Your task to perform on an android device: turn off location history Image 0: 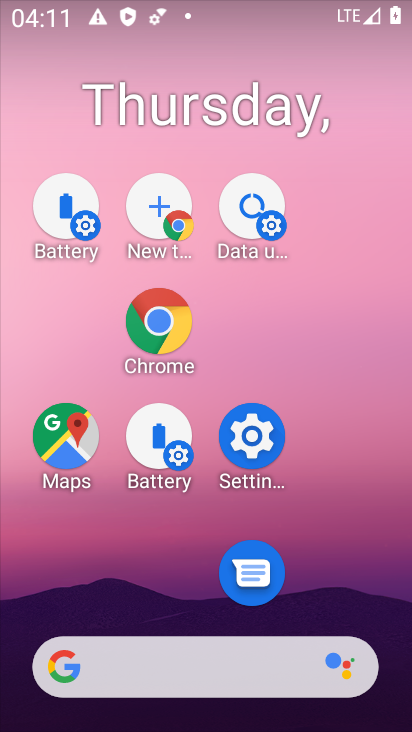
Step 0: drag from (249, 617) to (209, 273)
Your task to perform on an android device: turn off location history Image 1: 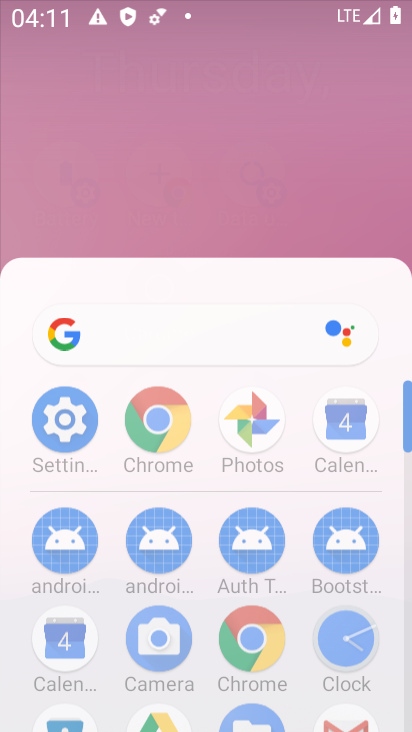
Step 1: drag from (270, 575) to (265, 290)
Your task to perform on an android device: turn off location history Image 2: 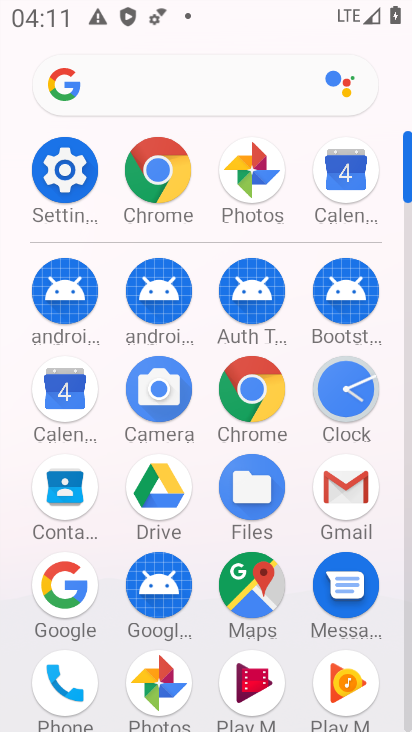
Step 2: drag from (229, 615) to (231, 376)
Your task to perform on an android device: turn off location history Image 3: 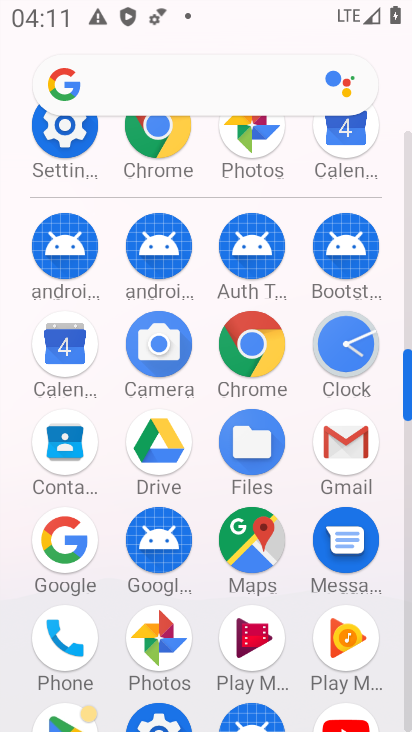
Step 3: click (58, 149)
Your task to perform on an android device: turn off location history Image 4: 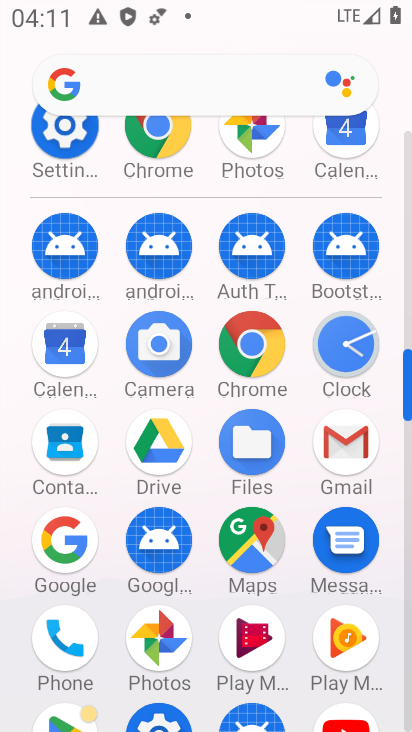
Step 4: click (59, 149)
Your task to perform on an android device: turn off location history Image 5: 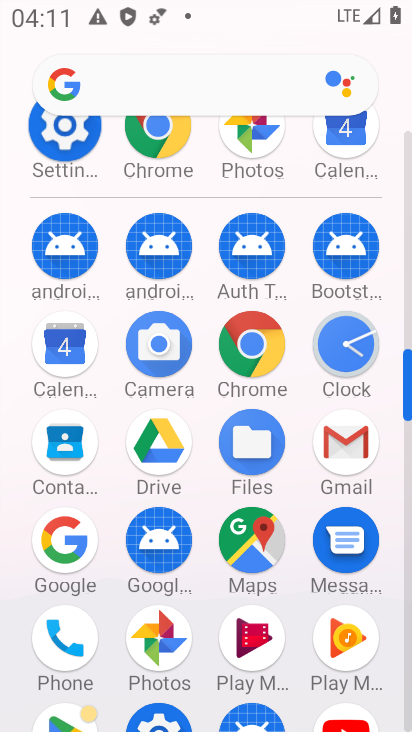
Step 5: click (63, 149)
Your task to perform on an android device: turn off location history Image 6: 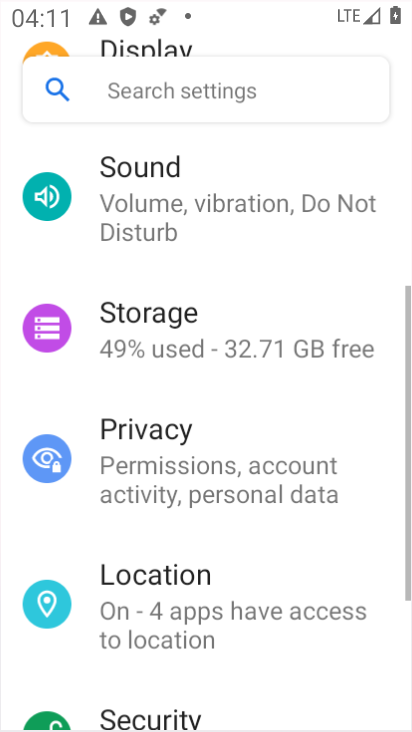
Step 6: click (63, 149)
Your task to perform on an android device: turn off location history Image 7: 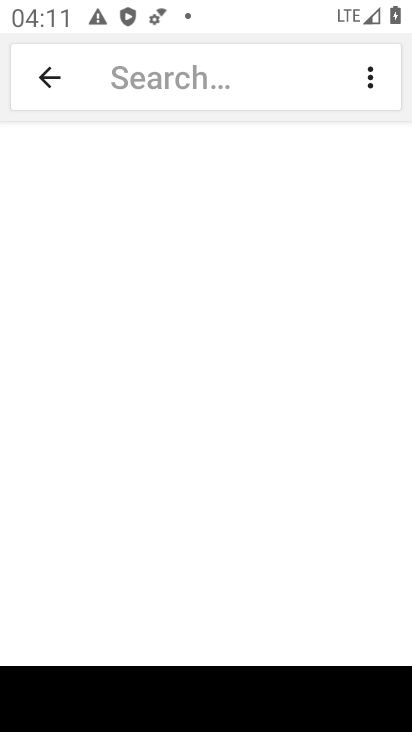
Step 7: drag from (187, 659) to (199, 412)
Your task to perform on an android device: turn off location history Image 8: 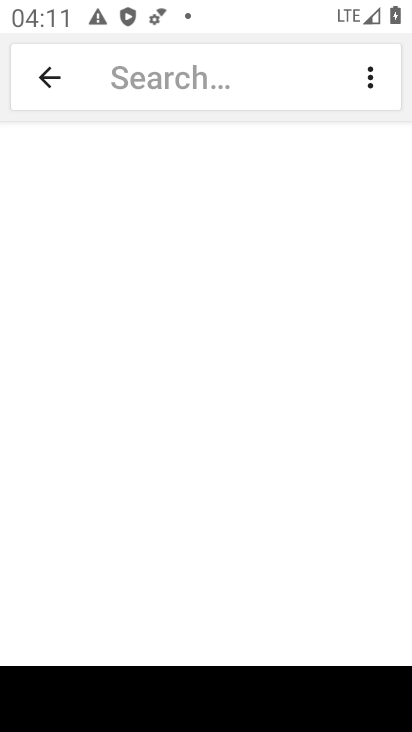
Step 8: click (31, 73)
Your task to perform on an android device: turn off location history Image 9: 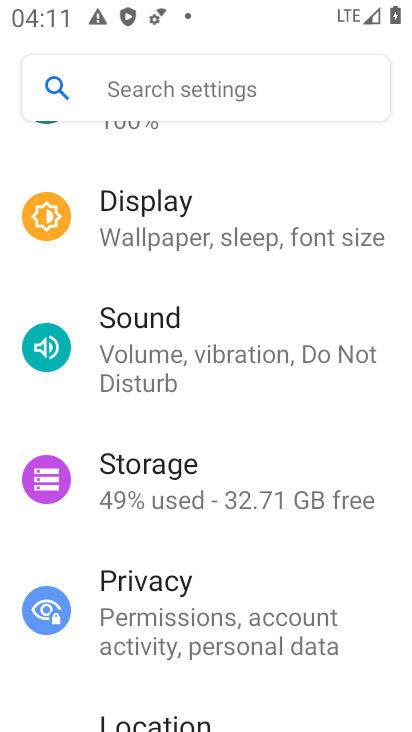
Step 9: drag from (204, 663) to (229, 343)
Your task to perform on an android device: turn off location history Image 10: 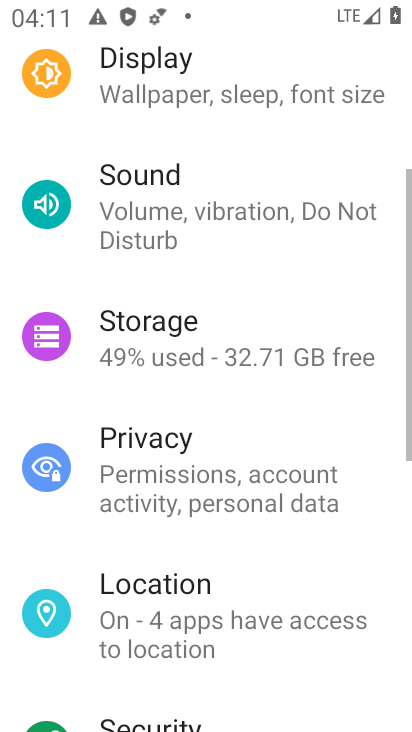
Step 10: drag from (237, 450) to (243, 231)
Your task to perform on an android device: turn off location history Image 11: 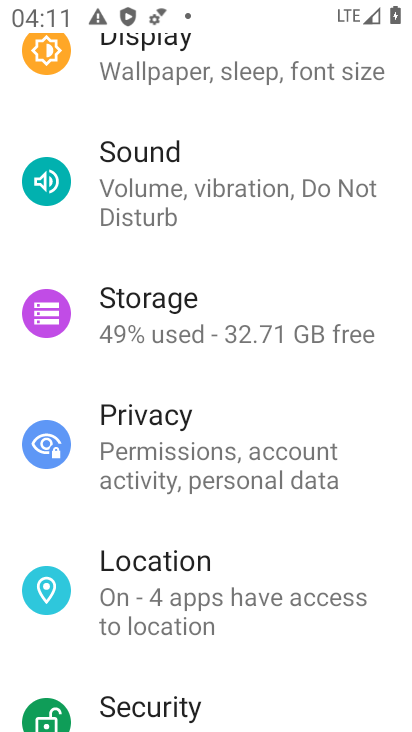
Step 11: click (171, 577)
Your task to perform on an android device: turn off location history Image 12: 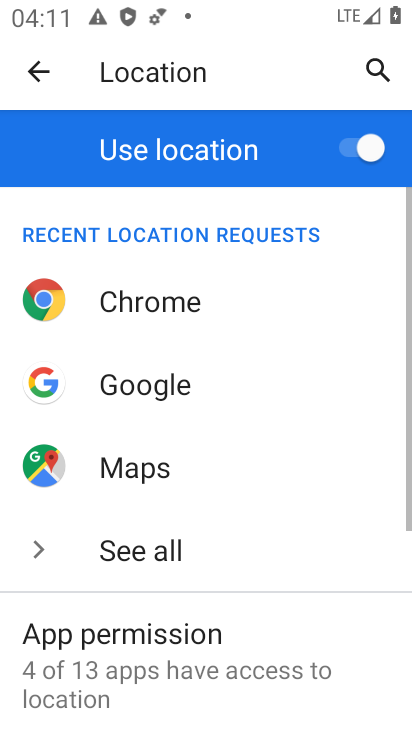
Step 12: drag from (176, 651) to (174, 323)
Your task to perform on an android device: turn off location history Image 13: 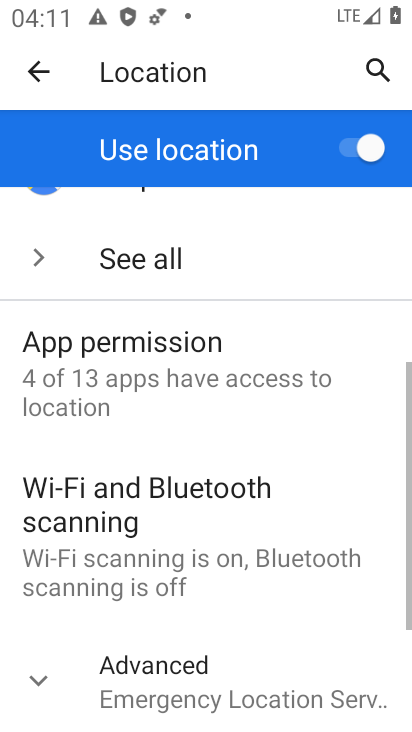
Step 13: drag from (202, 586) to (206, 327)
Your task to perform on an android device: turn off location history Image 14: 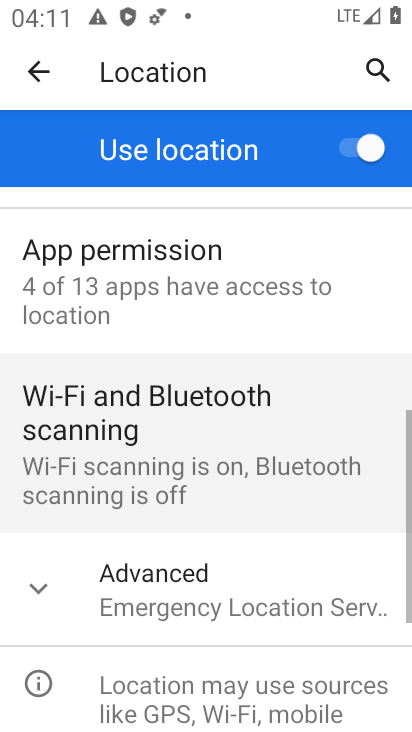
Step 14: drag from (190, 545) to (186, 352)
Your task to perform on an android device: turn off location history Image 15: 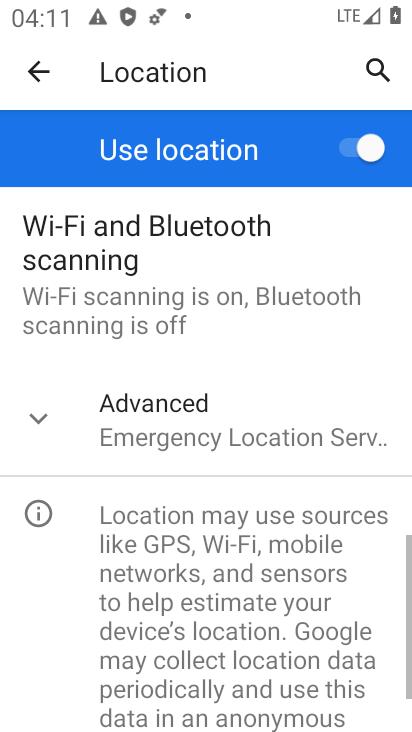
Step 15: drag from (190, 623) to (205, 324)
Your task to perform on an android device: turn off location history Image 16: 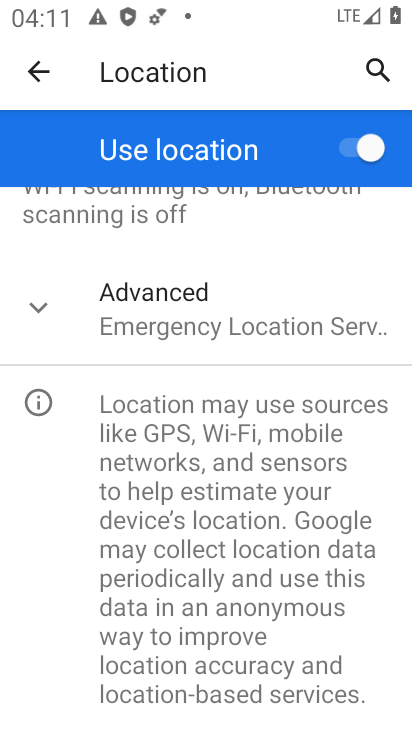
Step 16: click (173, 340)
Your task to perform on an android device: turn off location history Image 17: 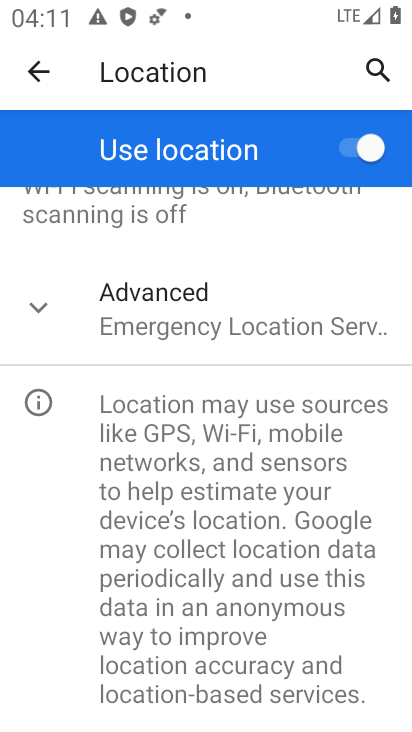
Step 17: click (181, 283)
Your task to perform on an android device: turn off location history Image 18: 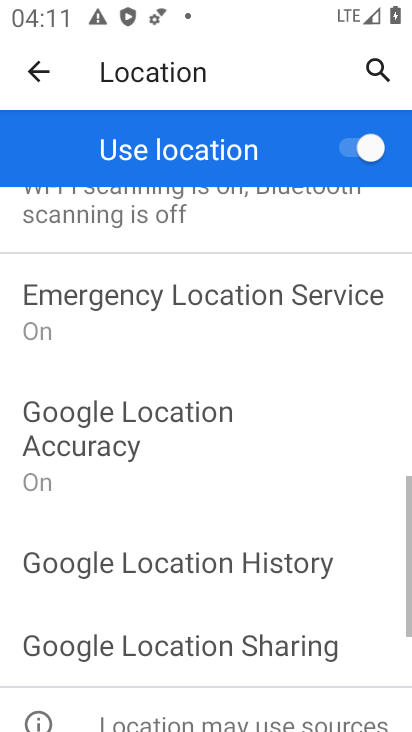
Step 18: click (183, 305)
Your task to perform on an android device: turn off location history Image 19: 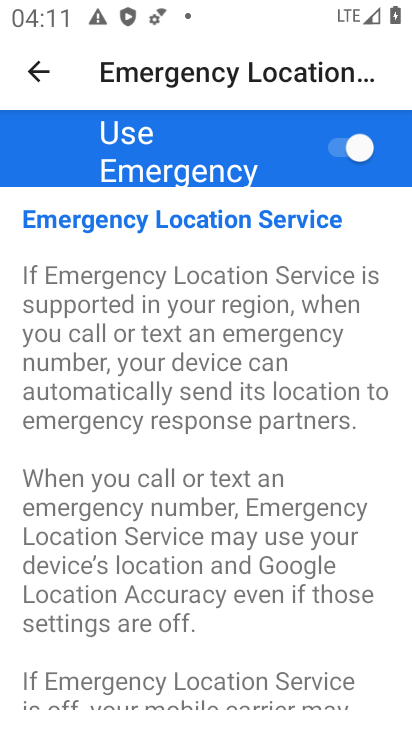
Step 19: click (37, 69)
Your task to perform on an android device: turn off location history Image 20: 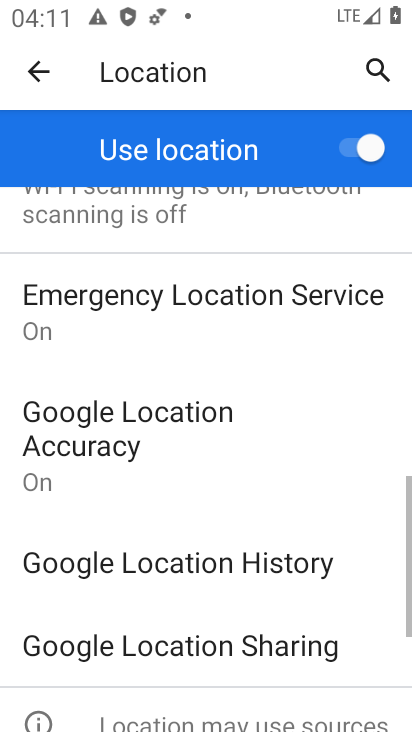
Step 20: click (187, 576)
Your task to perform on an android device: turn off location history Image 21: 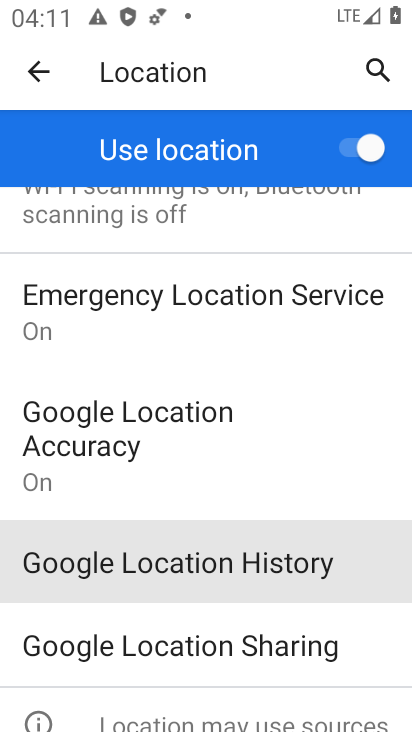
Step 21: click (187, 576)
Your task to perform on an android device: turn off location history Image 22: 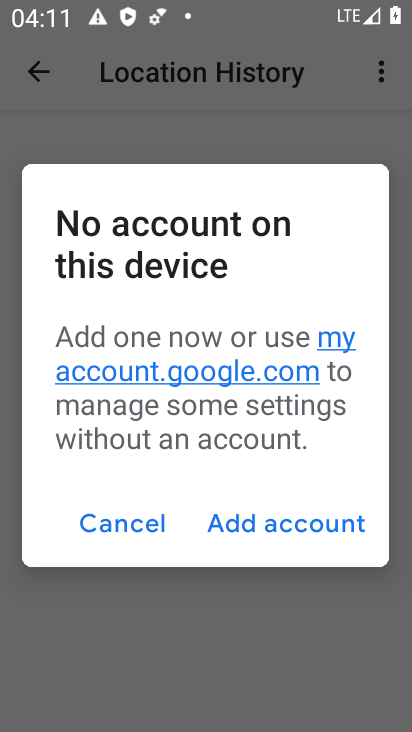
Step 22: click (130, 530)
Your task to perform on an android device: turn off location history Image 23: 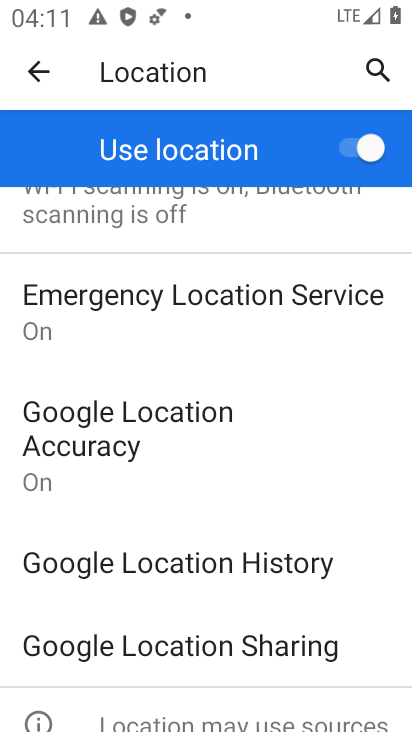
Step 23: click (365, 140)
Your task to perform on an android device: turn off location history Image 24: 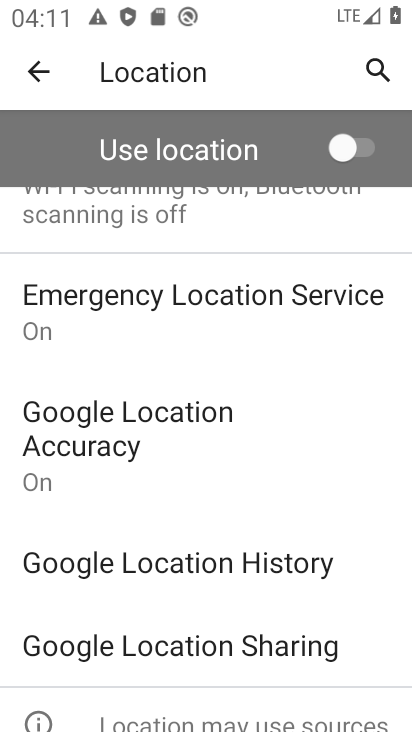
Step 24: click (333, 140)
Your task to perform on an android device: turn off location history Image 25: 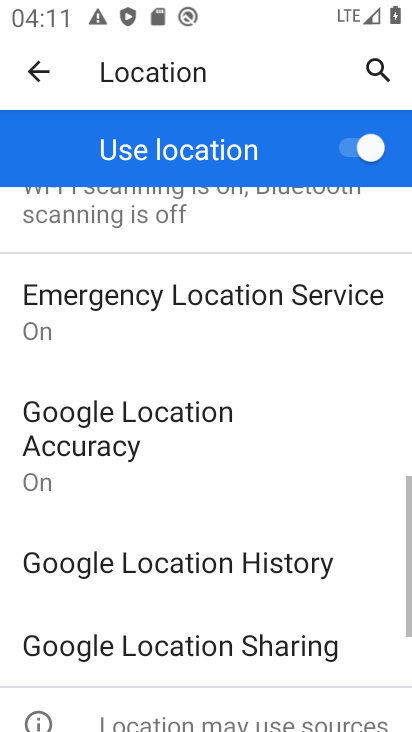
Step 25: click (180, 560)
Your task to perform on an android device: turn off location history Image 26: 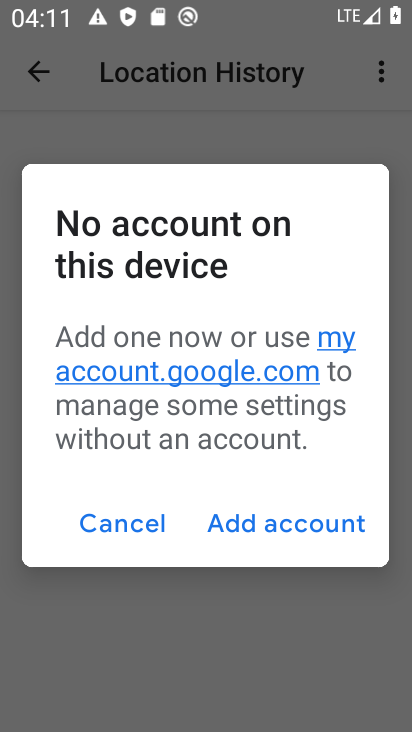
Step 26: click (262, 516)
Your task to perform on an android device: turn off location history Image 27: 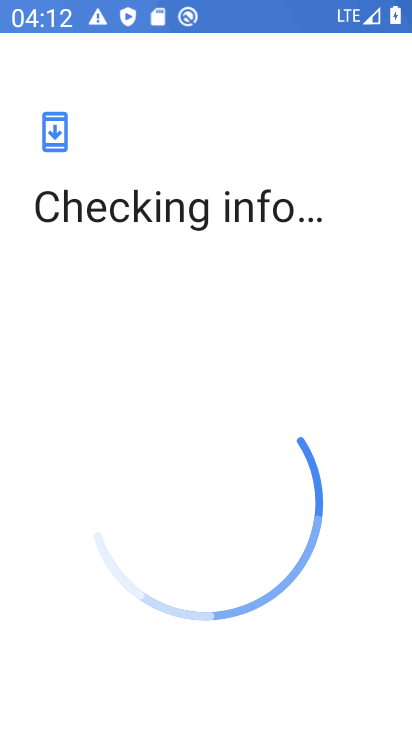
Step 27: task complete